Your task to perform on an android device: Go to ESPN.com Image 0: 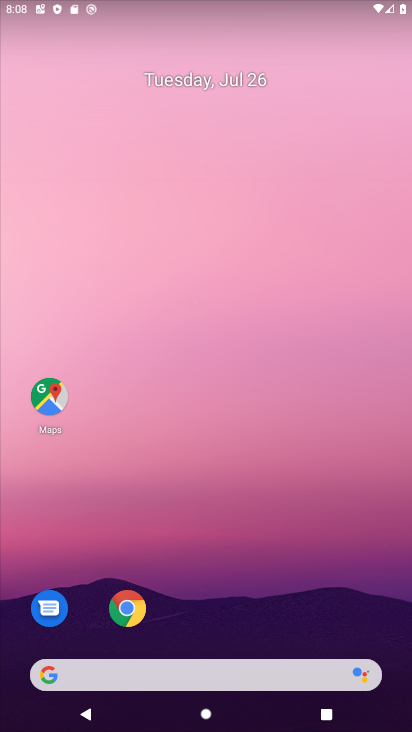
Step 0: click (82, 680)
Your task to perform on an android device: Go to ESPN.com Image 1: 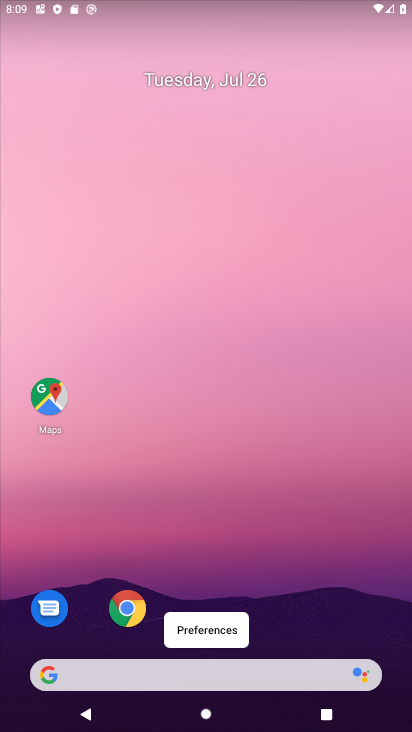
Step 1: click (96, 674)
Your task to perform on an android device: Go to ESPN.com Image 2: 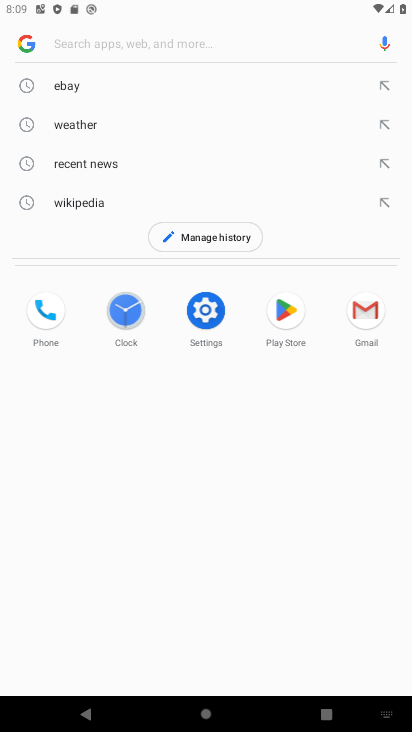
Step 2: type "ESPN.com"
Your task to perform on an android device: Go to ESPN.com Image 3: 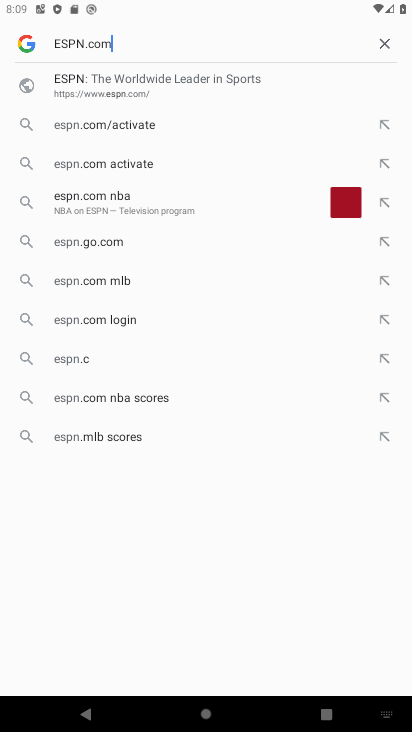
Step 3: type ""
Your task to perform on an android device: Go to ESPN.com Image 4: 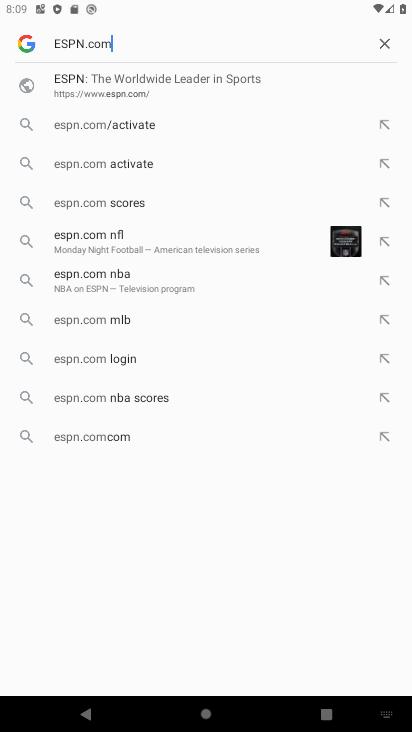
Step 4: click (57, 75)
Your task to perform on an android device: Go to ESPN.com Image 5: 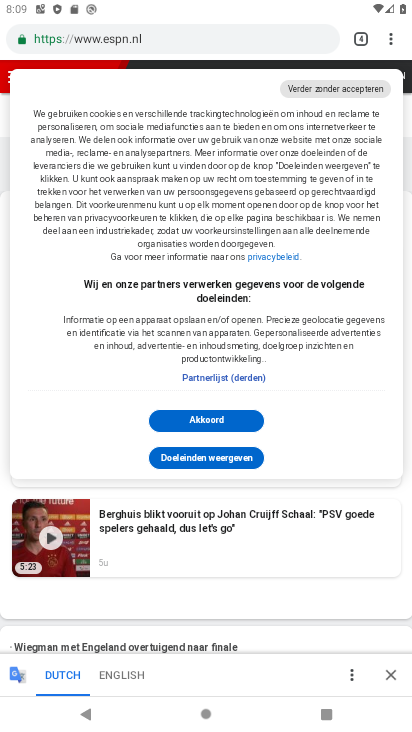
Step 5: task complete